Your task to perform on an android device: Go to Google Image 0: 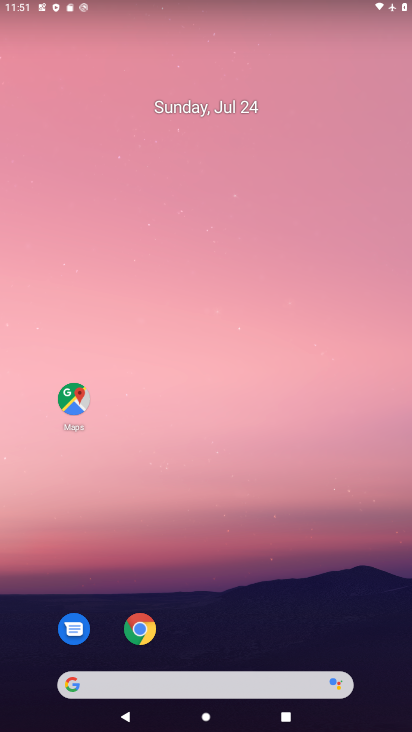
Step 0: click (188, 672)
Your task to perform on an android device: Go to Google Image 1: 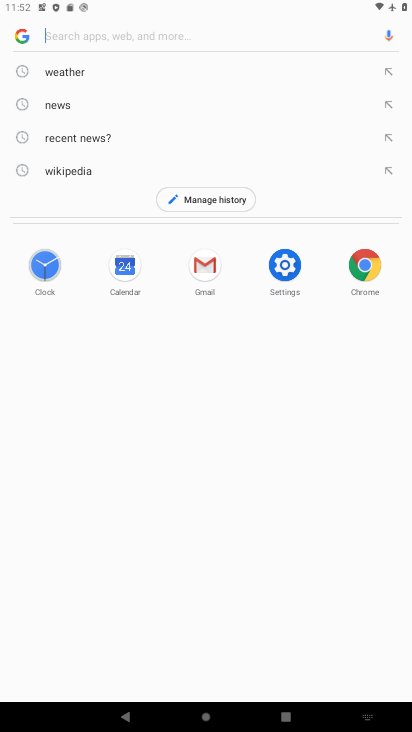
Step 1: type "google.com"
Your task to perform on an android device: Go to Google Image 2: 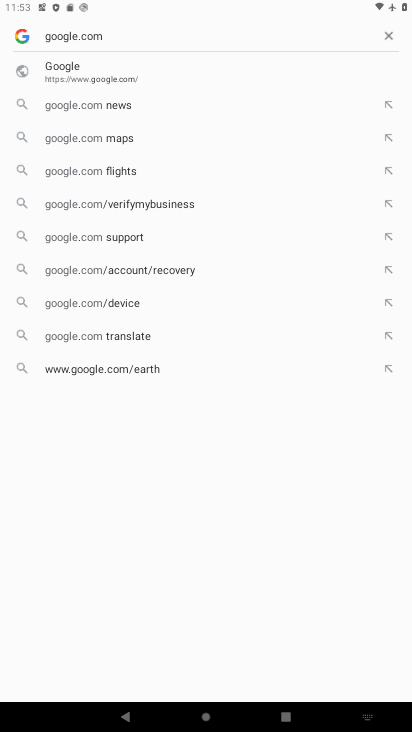
Step 2: click (110, 80)
Your task to perform on an android device: Go to Google Image 3: 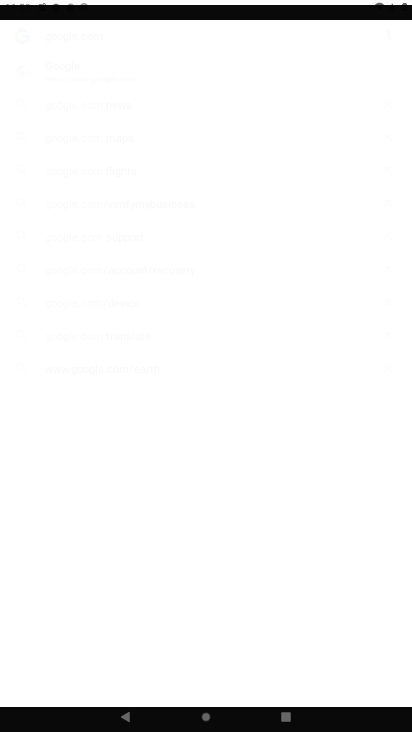
Step 3: task complete